Your task to perform on an android device: What is the recent news? Image 0: 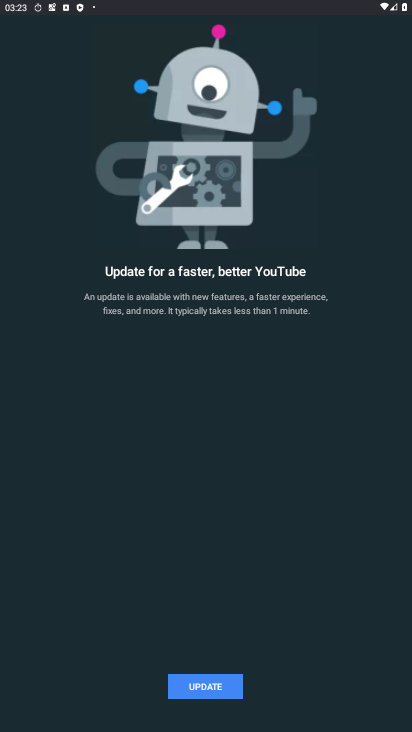
Step 0: press home button
Your task to perform on an android device: What is the recent news? Image 1: 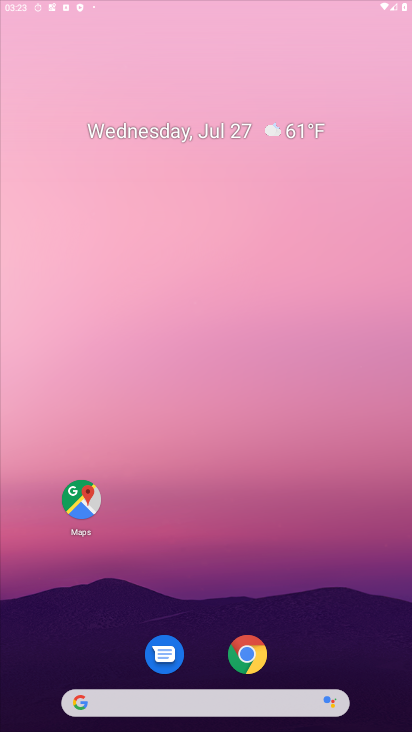
Step 1: drag from (193, 713) to (168, 117)
Your task to perform on an android device: What is the recent news? Image 2: 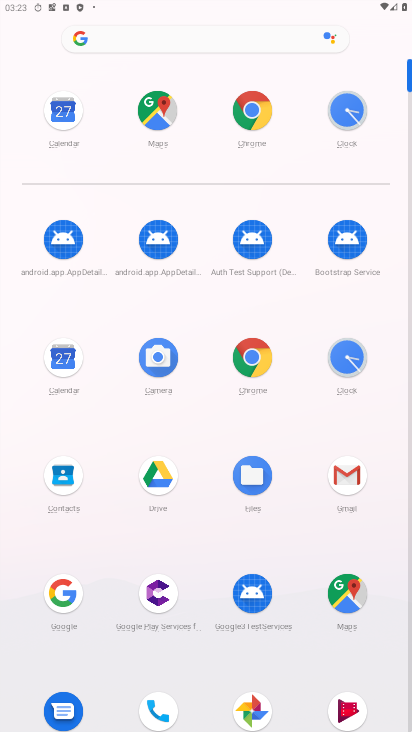
Step 2: click (73, 602)
Your task to perform on an android device: What is the recent news? Image 3: 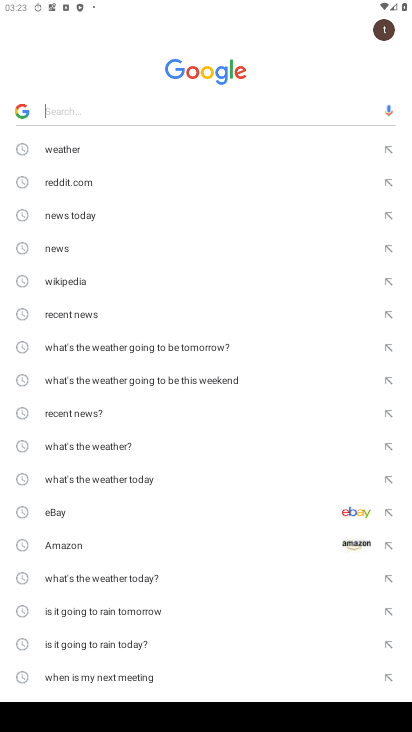
Step 3: click (54, 316)
Your task to perform on an android device: What is the recent news? Image 4: 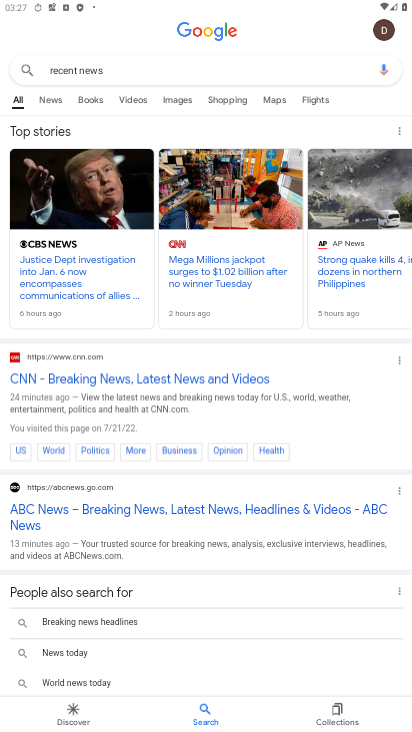
Step 4: task complete